Your task to perform on an android device: Open Chrome and go to the settings page Image 0: 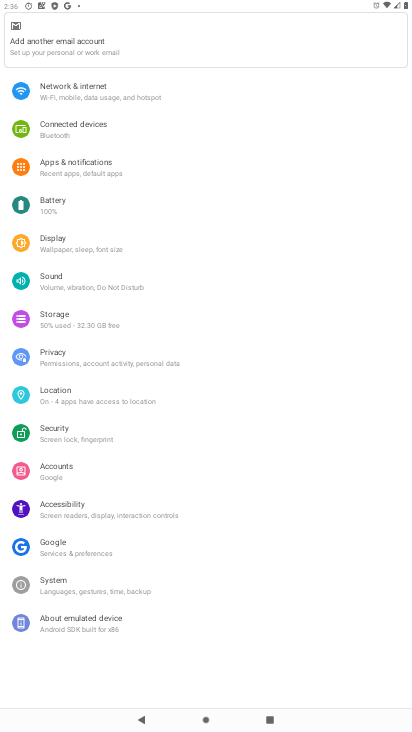
Step 0: press home button
Your task to perform on an android device: Open Chrome and go to the settings page Image 1: 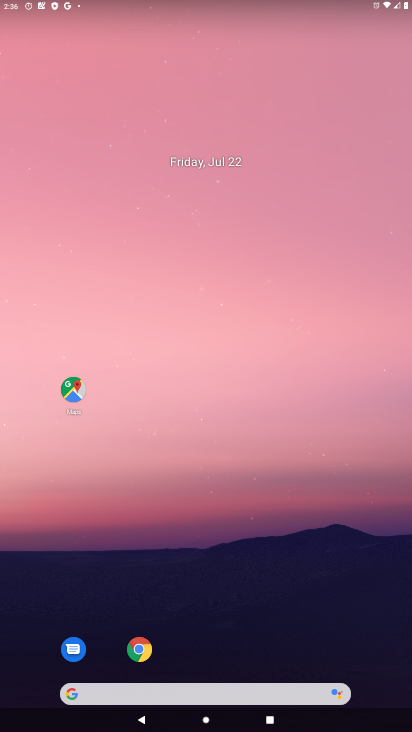
Step 1: drag from (341, 574) to (306, 40)
Your task to perform on an android device: Open Chrome and go to the settings page Image 2: 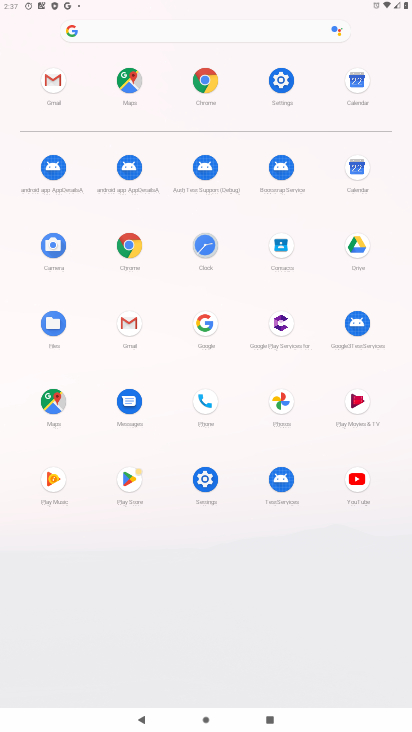
Step 2: click (209, 84)
Your task to perform on an android device: Open Chrome and go to the settings page Image 3: 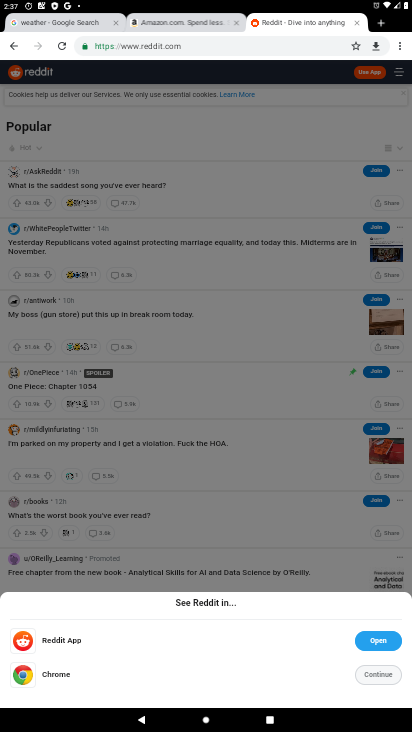
Step 3: task complete